Your task to perform on an android device: read, delete, or share a saved page in the chrome app Image 0: 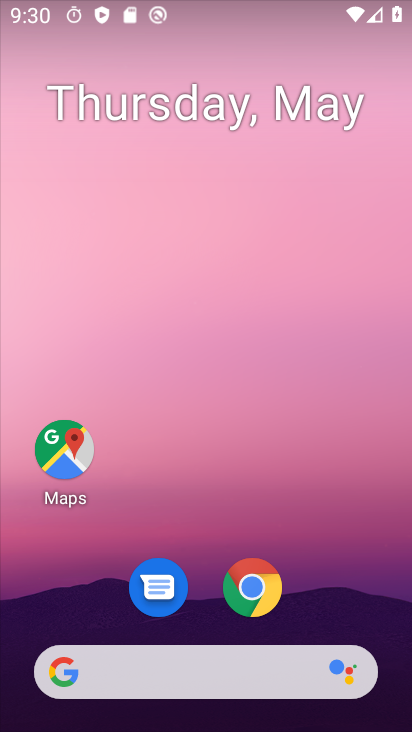
Step 0: click (263, 587)
Your task to perform on an android device: read, delete, or share a saved page in the chrome app Image 1: 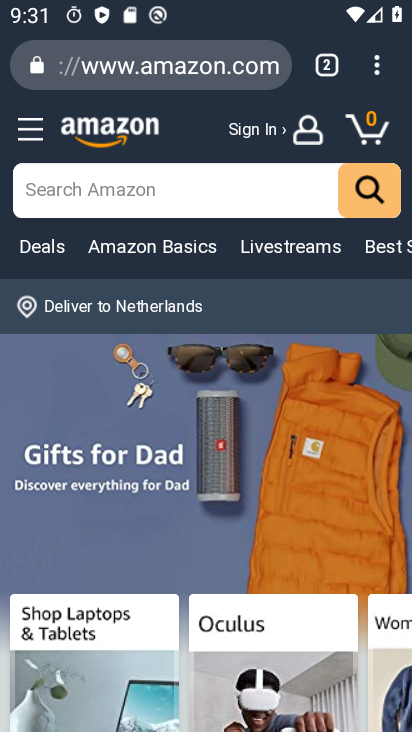
Step 1: click (378, 67)
Your task to perform on an android device: read, delete, or share a saved page in the chrome app Image 2: 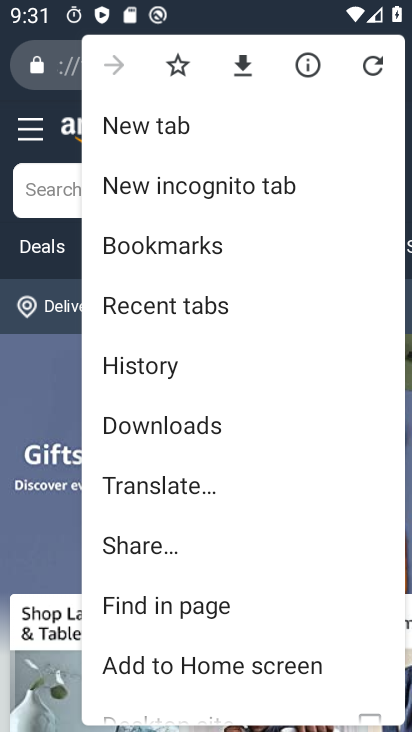
Step 2: click (160, 433)
Your task to perform on an android device: read, delete, or share a saved page in the chrome app Image 3: 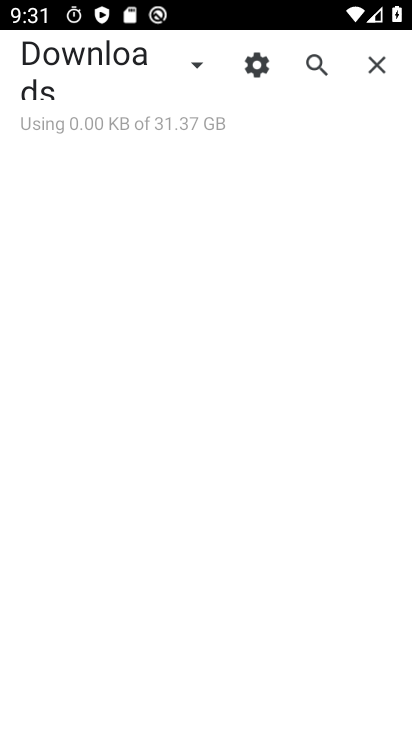
Step 3: click (196, 63)
Your task to perform on an android device: read, delete, or share a saved page in the chrome app Image 4: 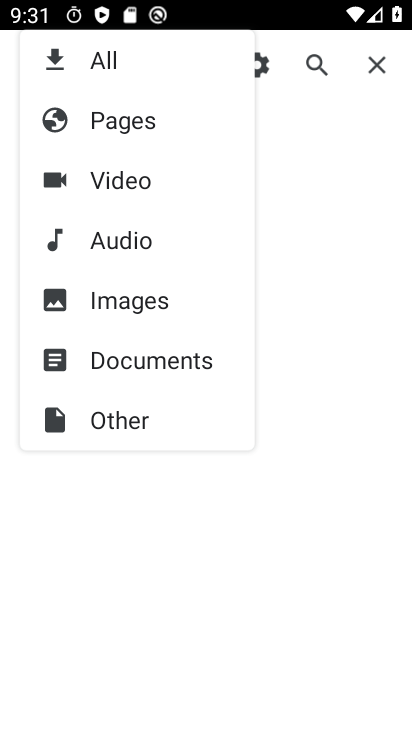
Step 4: click (113, 130)
Your task to perform on an android device: read, delete, or share a saved page in the chrome app Image 5: 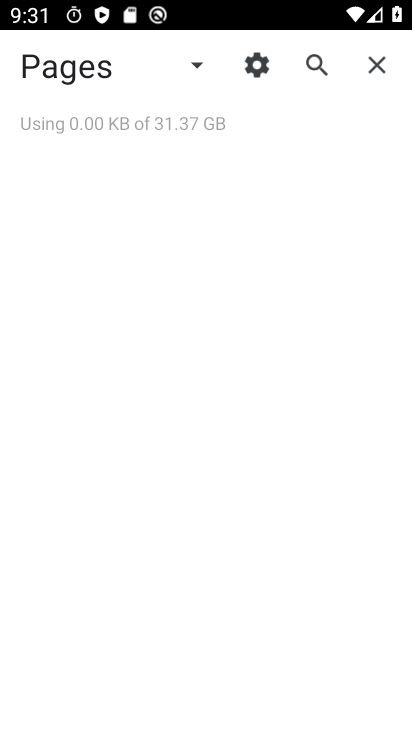
Step 5: task complete